Your task to perform on an android device: open app "Google Translate" Image 0: 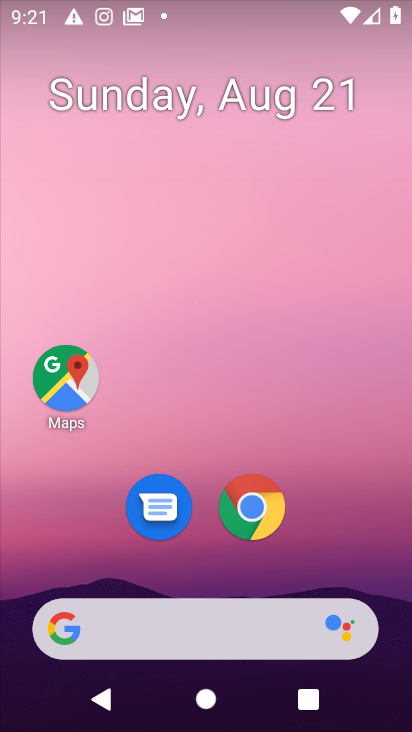
Step 0: drag from (202, 568) to (223, 110)
Your task to perform on an android device: open app "Google Translate" Image 1: 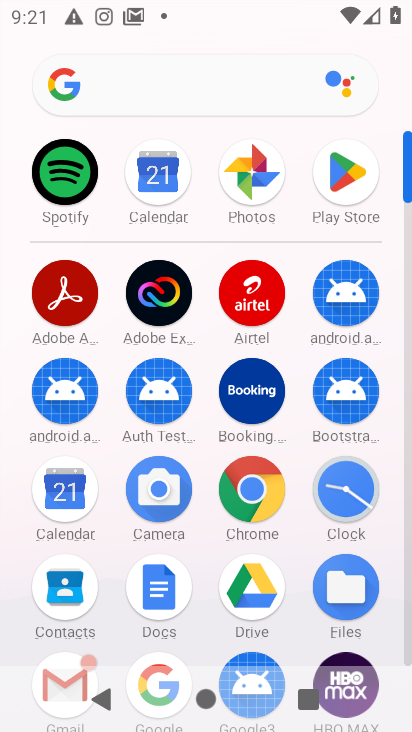
Step 1: click (342, 186)
Your task to perform on an android device: open app "Google Translate" Image 2: 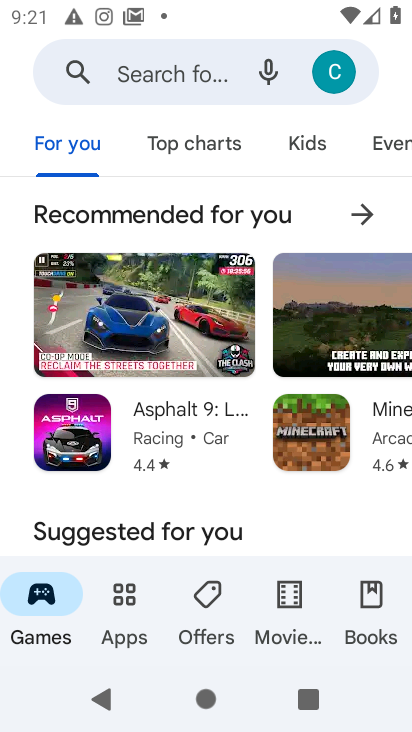
Step 2: click (188, 75)
Your task to perform on an android device: open app "Google Translate" Image 3: 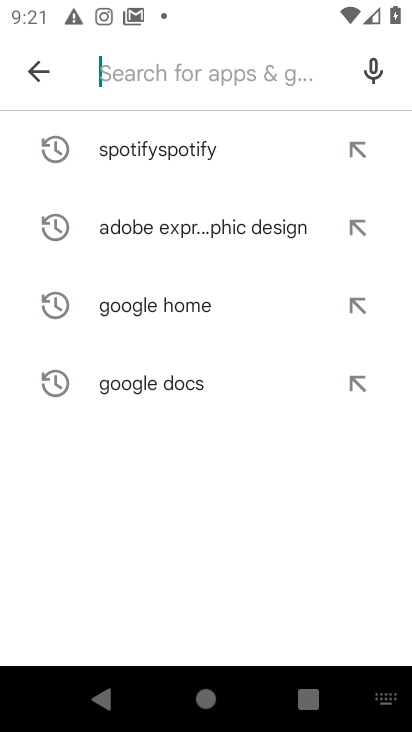
Step 3: type "Google Translate"
Your task to perform on an android device: open app "Google Translate" Image 4: 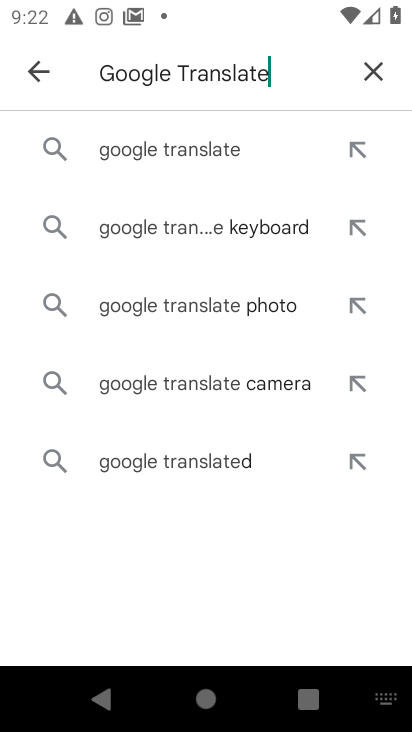
Step 4: click (218, 160)
Your task to perform on an android device: open app "Google Translate" Image 5: 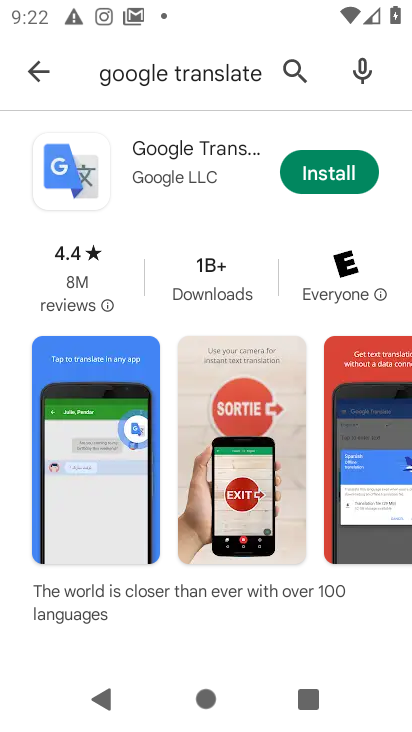
Step 5: click (339, 172)
Your task to perform on an android device: open app "Google Translate" Image 6: 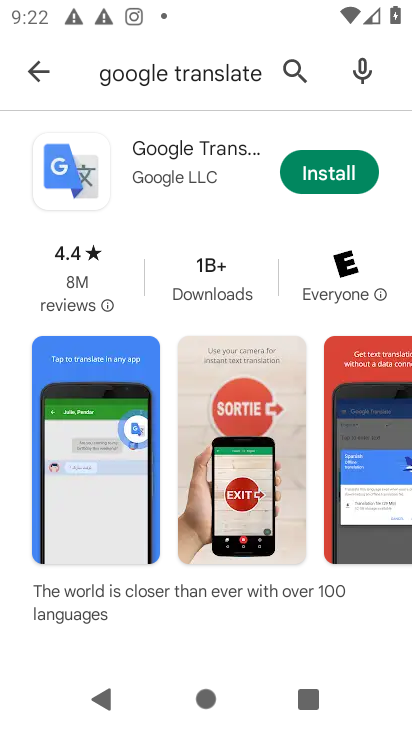
Step 6: click (315, 178)
Your task to perform on an android device: open app "Google Translate" Image 7: 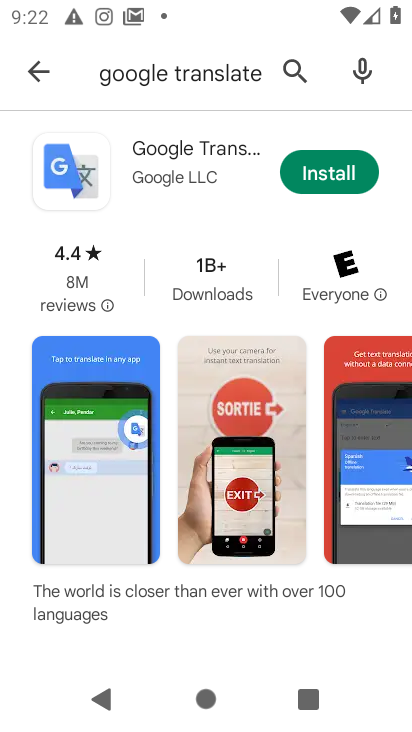
Step 7: task complete